Your task to perform on an android device: Open location settings Image 0: 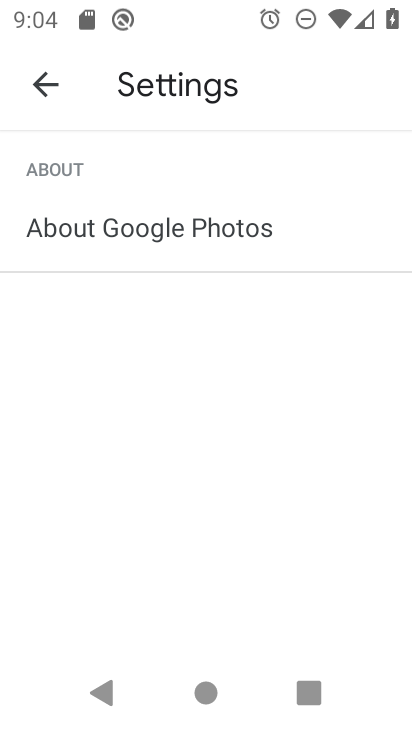
Step 0: press home button
Your task to perform on an android device: Open location settings Image 1: 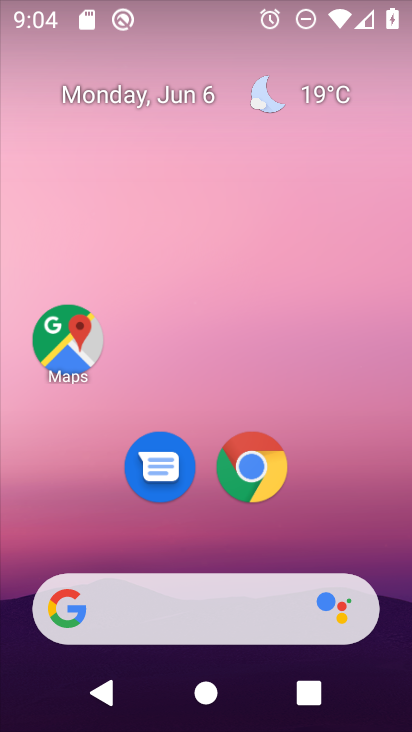
Step 1: drag from (364, 537) to (370, 122)
Your task to perform on an android device: Open location settings Image 2: 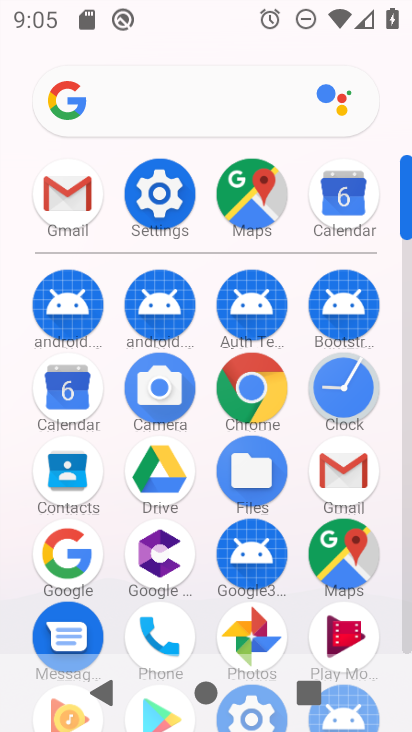
Step 2: click (159, 196)
Your task to perform on an android device: Open location settings Image 3: 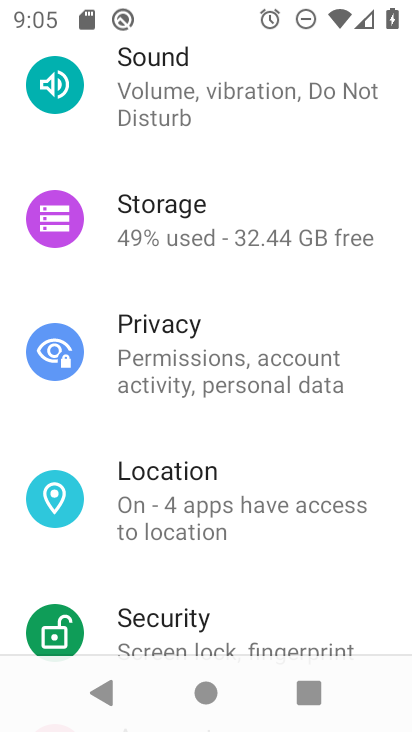
Step 3: drag from (369, 265) to (360, 388)
Your task to perform on an android device: Open location settings Image 4: 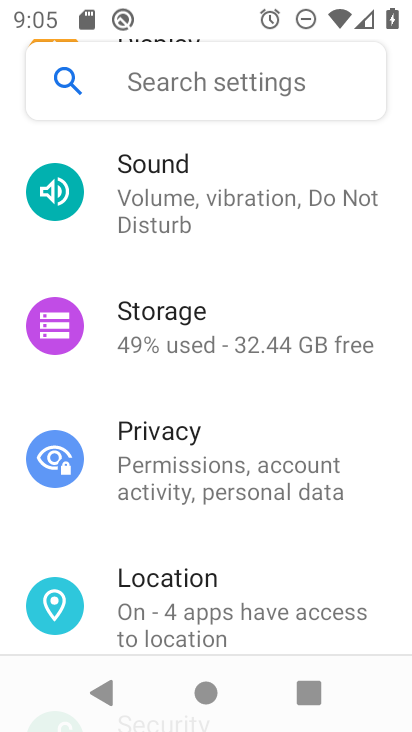
Step 4: drag from (372, 261) to (358, 415)
Your task to perform on an android device: Open location settings Image 5: 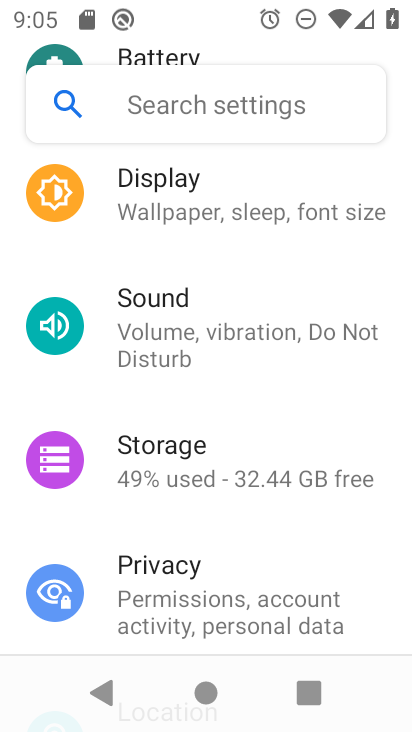
Step 5: drag from (353, 254) to (347, 387)
Your task to perform on an android device: Open location settings Image 6: 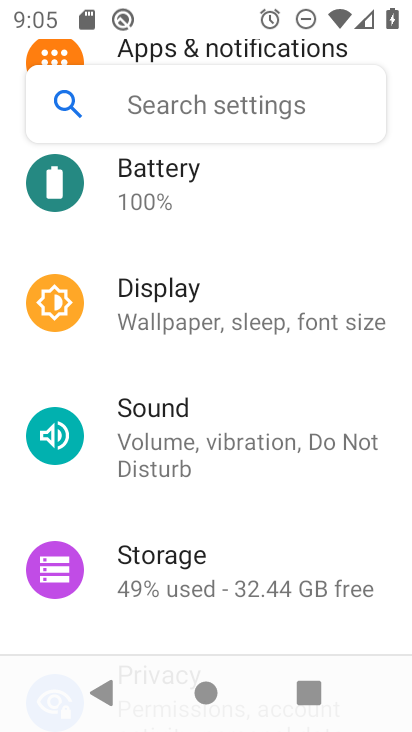
Step 6: drag from (348, 223) to (337, 395)
Your task to perform on an android device: Open location settings Image 7: 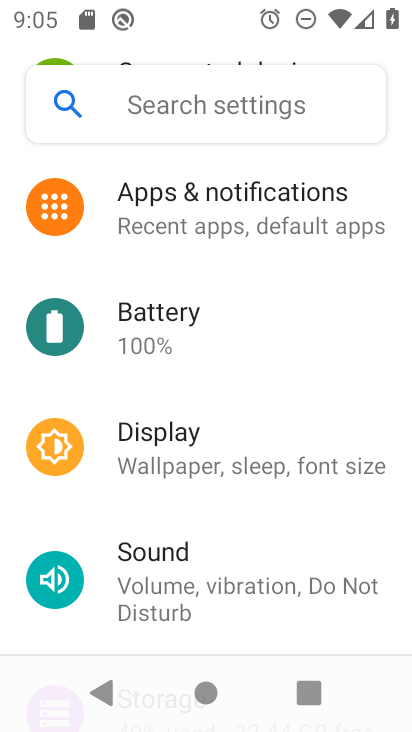
Step 7: drag from (349, 254) to (346, 399)
Your task to perform on an android device: Open location settings Image 8: 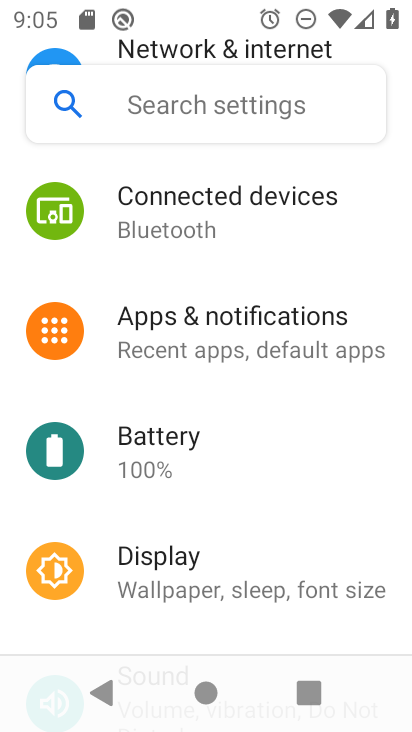
Step 8: drag from (330, 425) to (351, 294)
Your task to perform on an android device: Open location settings Image 9: 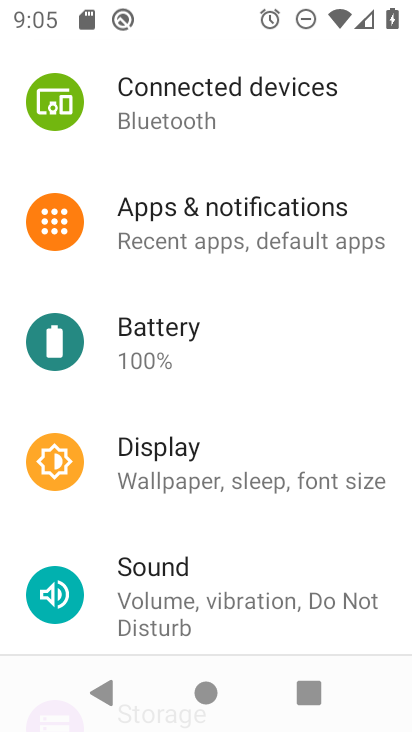
Step 9: drag from (334, 447) to (335, 279)
Your task to perform on an android device: Open location settings Image 10: 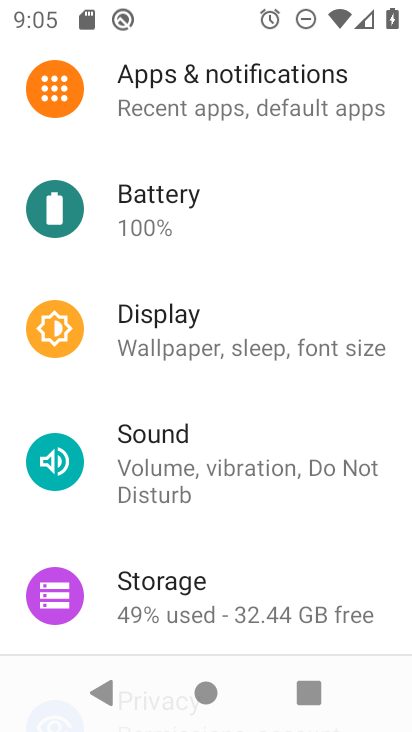
Step 10: drag from (343, 537) to (339, 385)
Your task to perform on an android device: Open location settings Image 11: 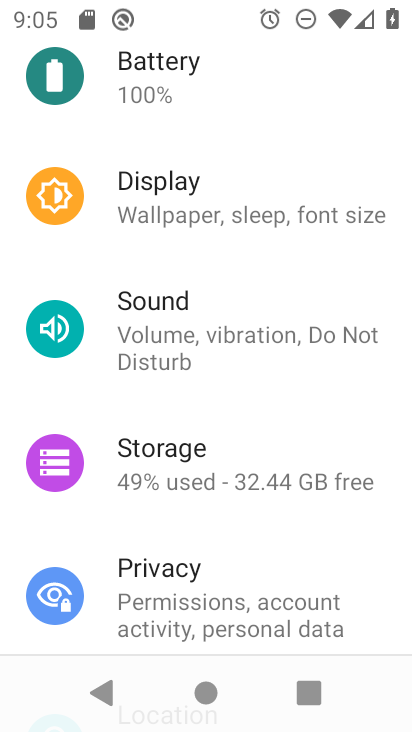
Step 11: drag from (333, 539) to (355, 392)
Your task to perform on an android device: Open location settings Image 12: 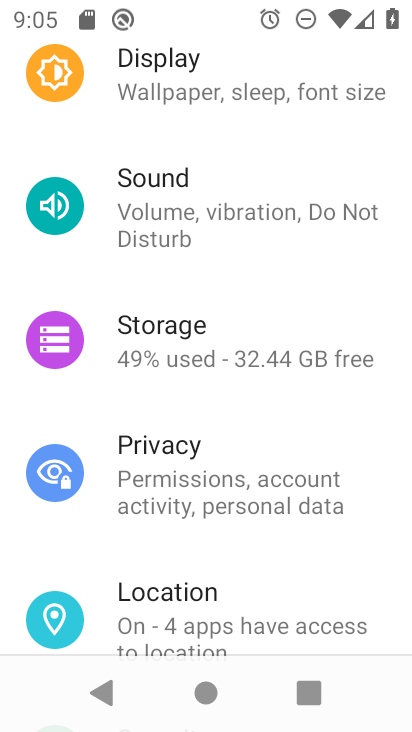
Step 12: drag from (324, 560) to (355, 373)
Your task to perform on an android device: Open location settings Image 13: 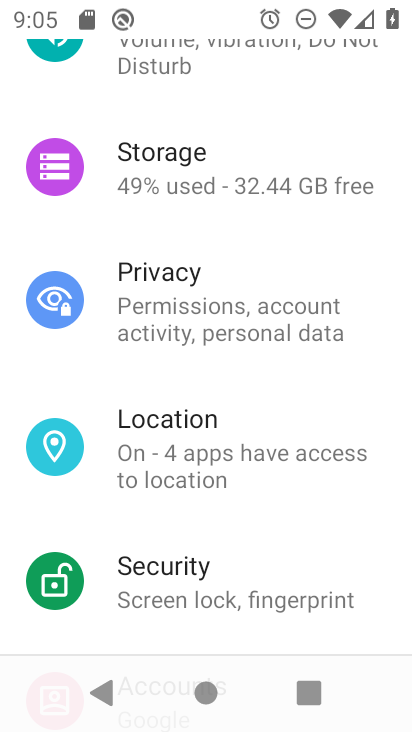
Step 13: click (254, 445)
Your task to perform on an android device: Open location settings Image 14: 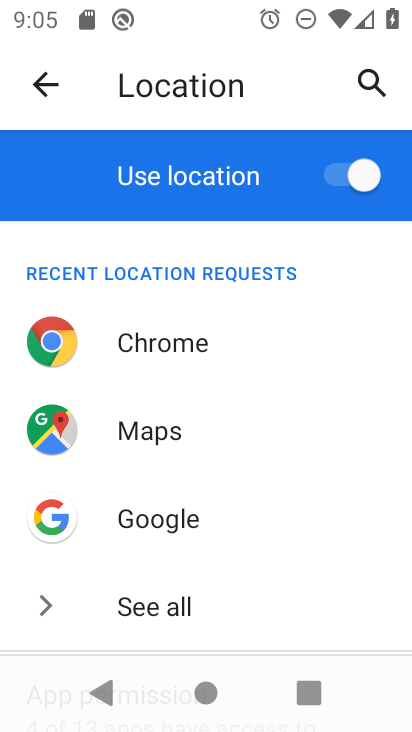
Step 14: task complete